Your task to perform on an android device: Go to ESPN.com Image 0: 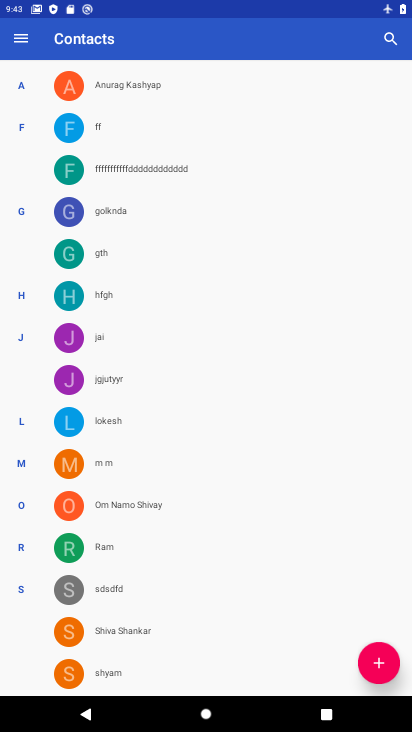
Step 0: press home button
Your task to perform on an android device: Go to ESPN.com Image 1: 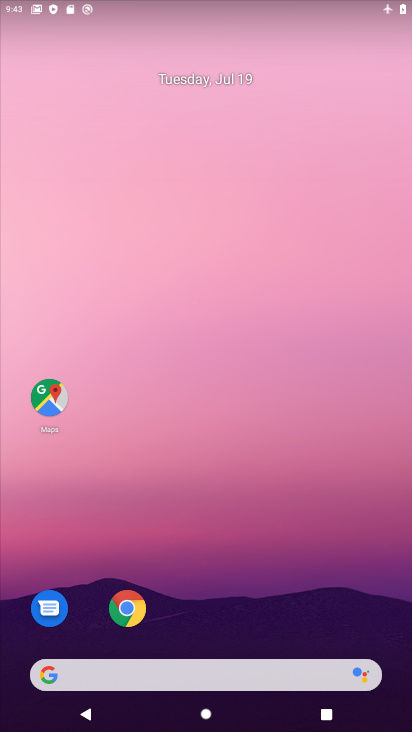
Step 1: drag from (302, 604) to (323, 94)
Your task to perform on an android device: Go to ESPN.com Image 2: 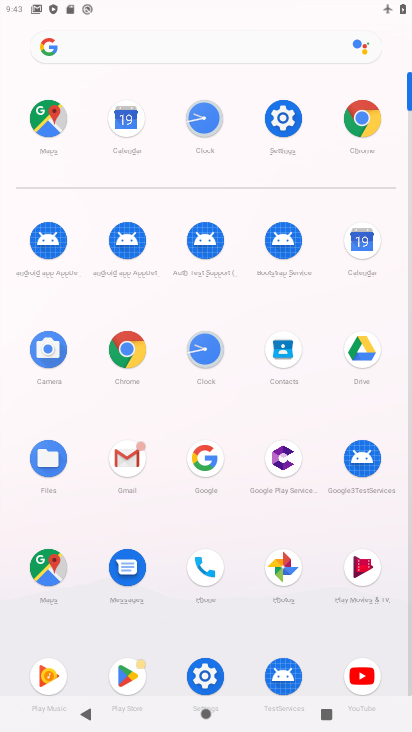
Step 2: click (371, 123)
Your task to perform on an android device: Go to ESPN.com Image 3: 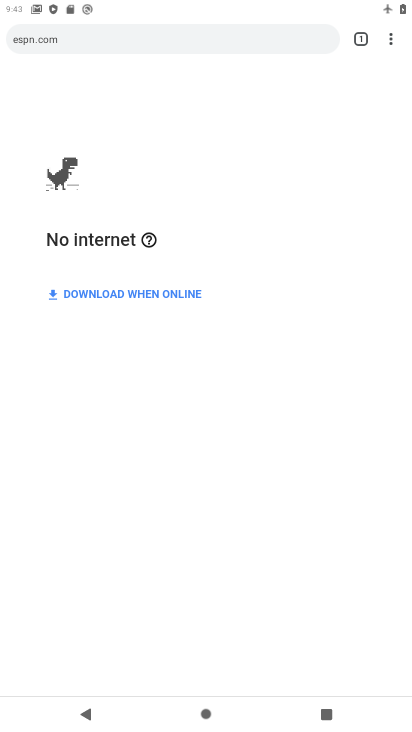
Step 3: click (271, 49)
Your task to perform on an android device: Go to ESPN.com Image 4: 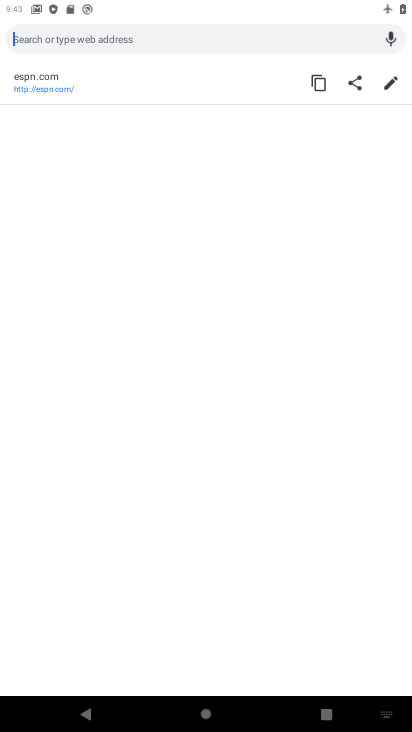
Step 4: type "espn.com"
Your task to perform on an android device: Go to ESPN.com Image 5: 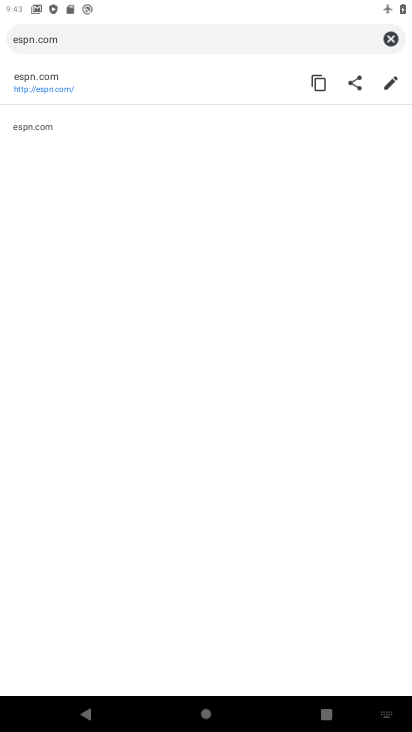
Step 5: click (53, 91)
Your task to perform on an android device: Go to ESPN.com Image 6: 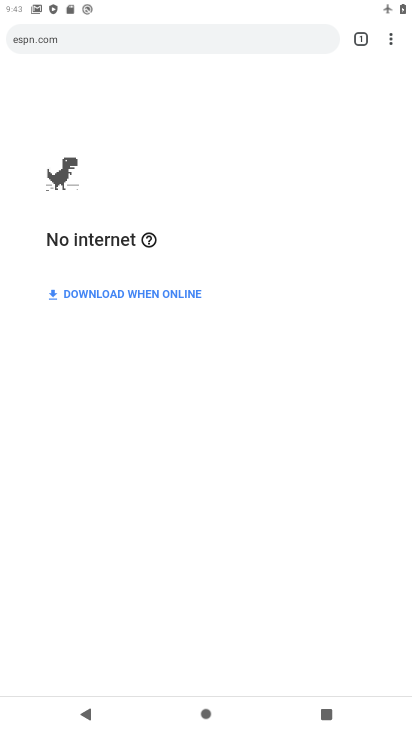
Step 6: task complete